Your task to perform on an android device: set default search engine in the chrome app Image 0: 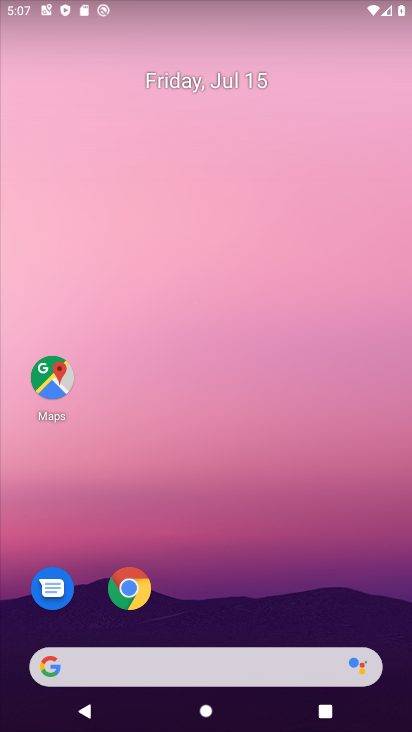
Step 0: drag from (306, 551) to (275, 195)
Your task to perform on an android device: set default search engine in the chrome app Image 1: 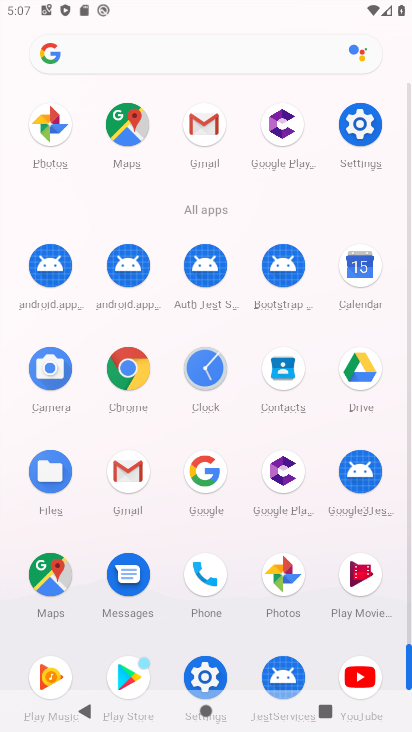
Step 1: click (132, 374)
Your task to perform on an android device: set default search engine in the chrome app Image 2: 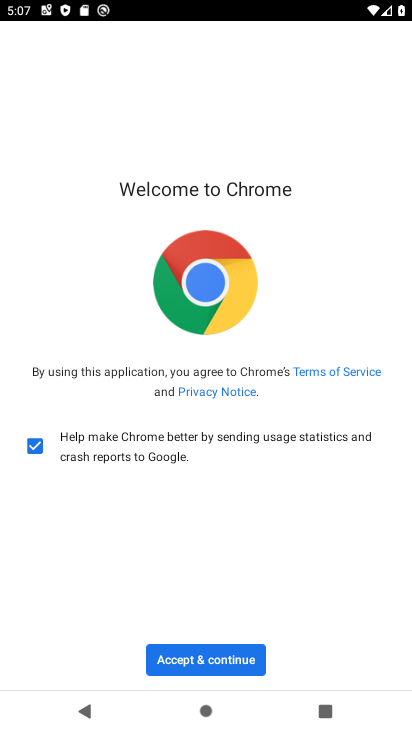
Step 2: click (211, 649)
Your task to perform on an android device: set default search engine in the chrome app Image 3: 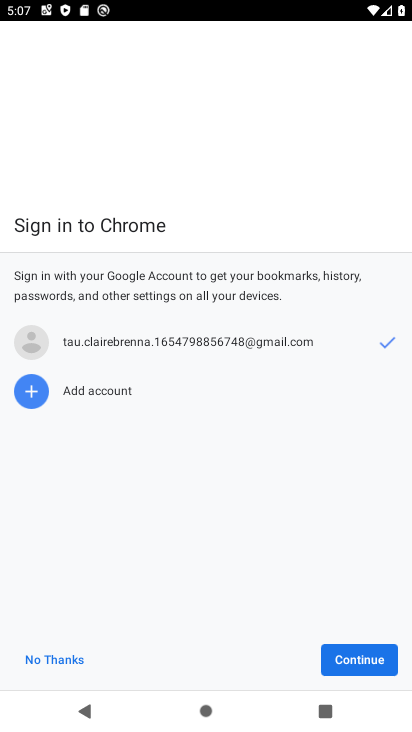
Step 3: click (80, 661)
Your task to perform on an android device: set default search engine in the chrome app Image 4: 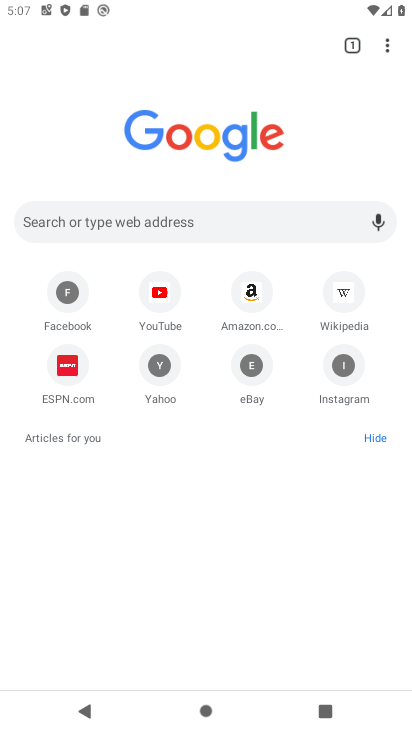
Step 4: click (397, 42)
Your task to perform on an android device: set default search engine in the chrome app Image 5: 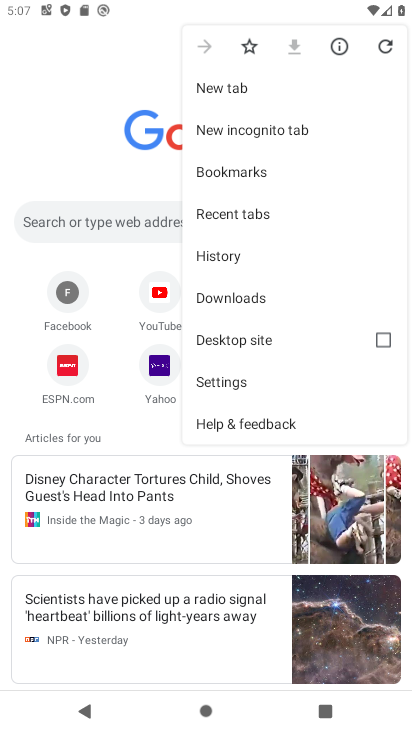
Step 5: click (264, 386)
Your task to perform on an android device: set default search engine in the chrome app Image 6: 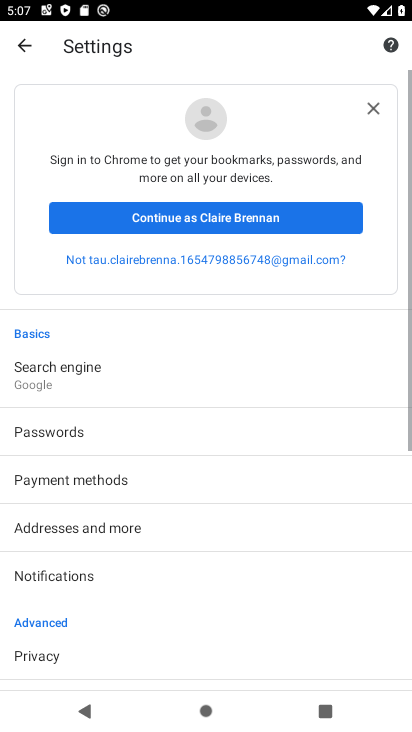
Step 6: click (53, 370)
Your task to perform on an android device: set default search engine in the chrome app Image 7: 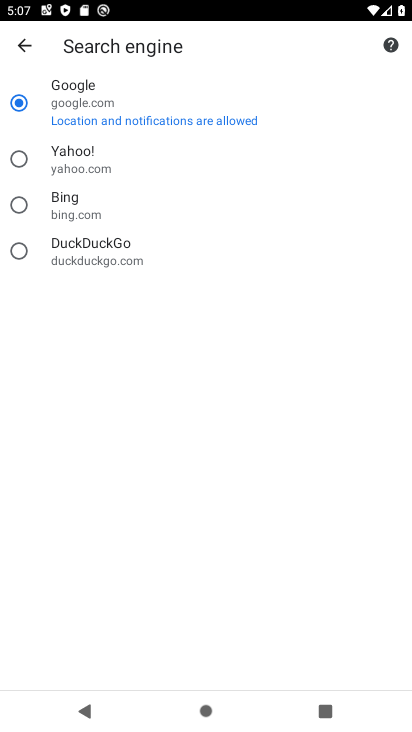
Step 7: task complete